Your task to perform on an android device: change keyboard looks Image 0: 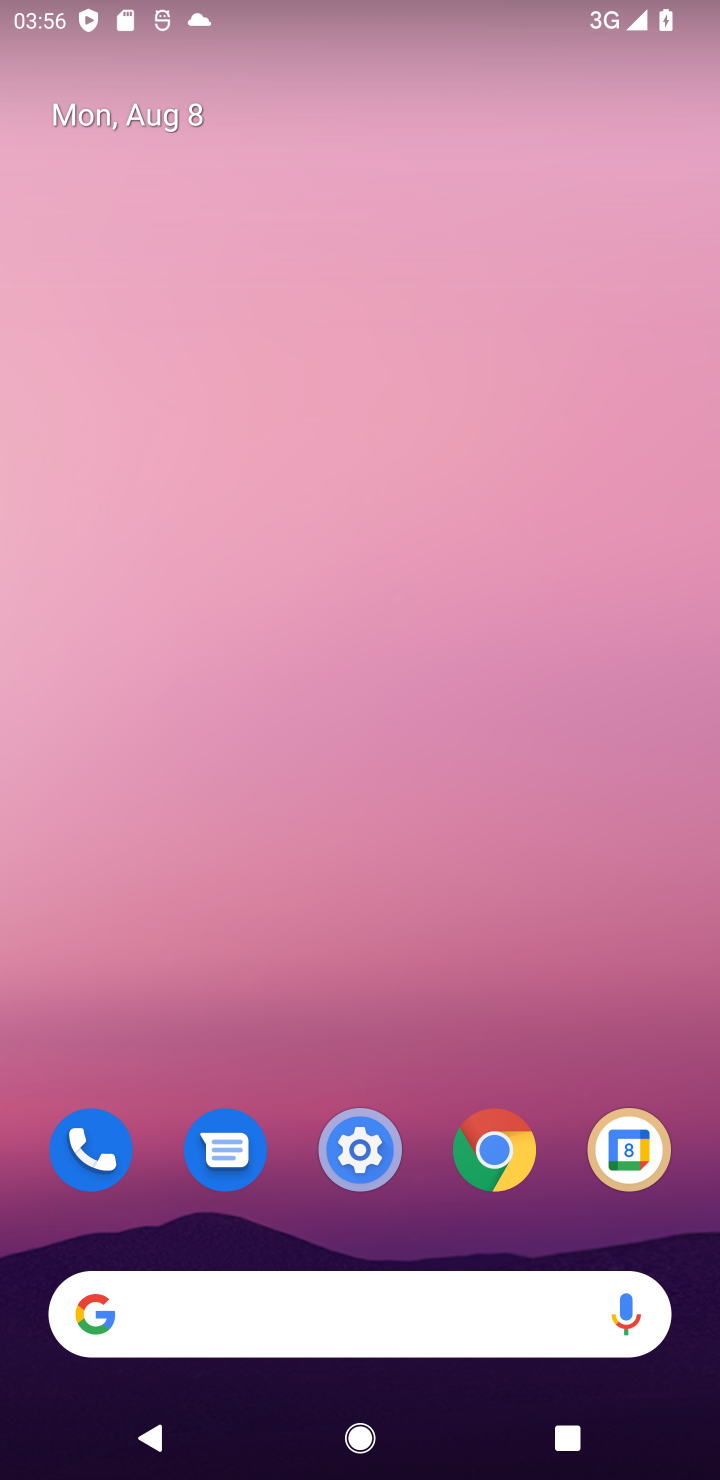
Step 0: drag from (70, 1418) to (448, 32)
Your task to perform on an android device: change keyboard looks Image 1: 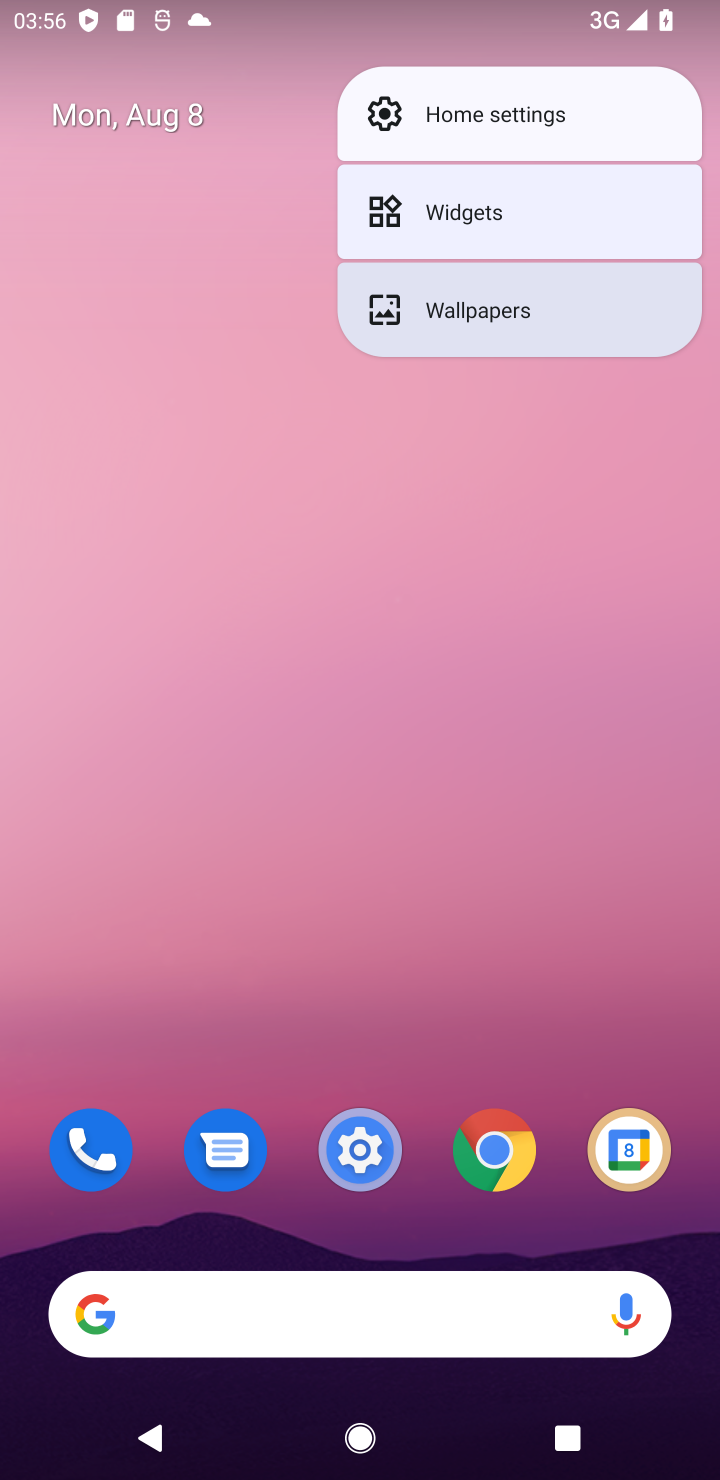
Step 1: drag from (121, 1430) to (339, 629)
Your task to perform on an android device: change keyboard looks Image 2: 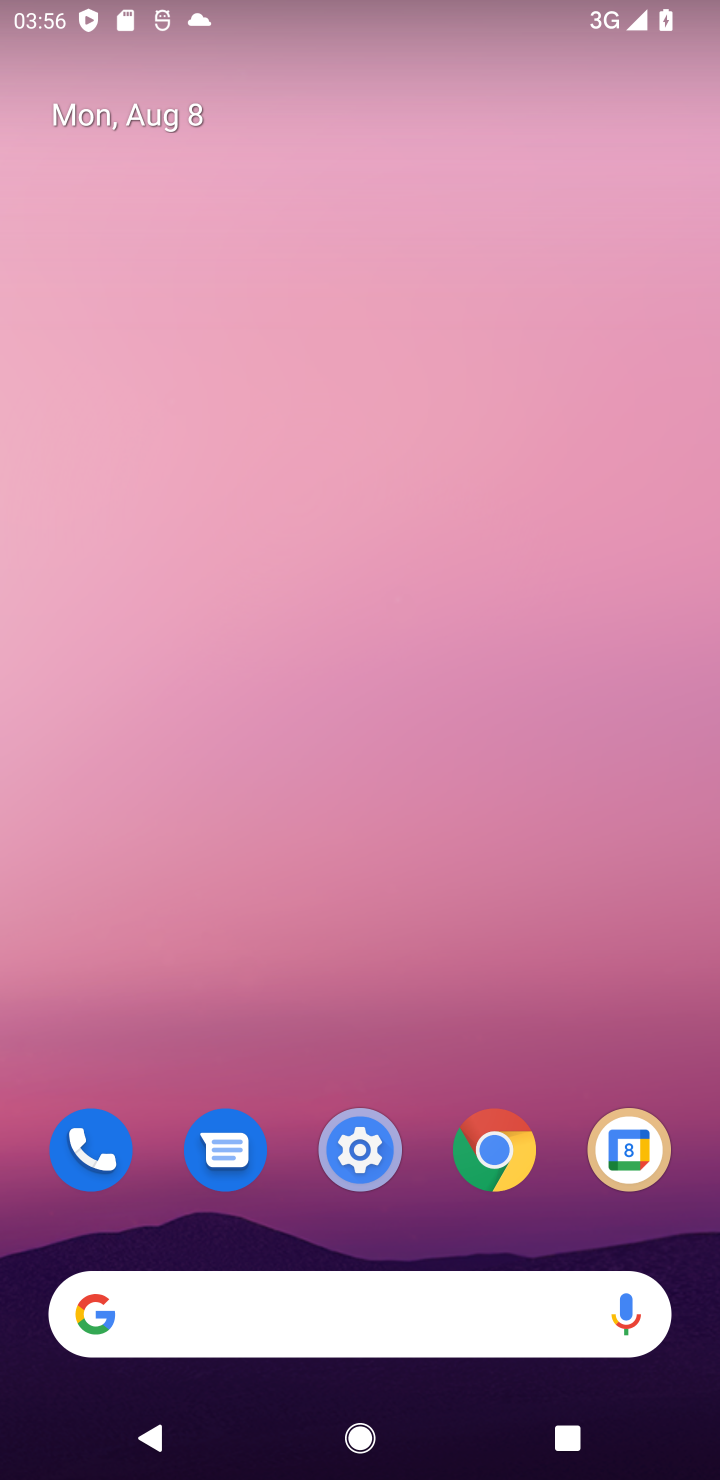
Step 2: click (406, 1175)
Your task to perform on an android device: change keyboard looks Image 3: 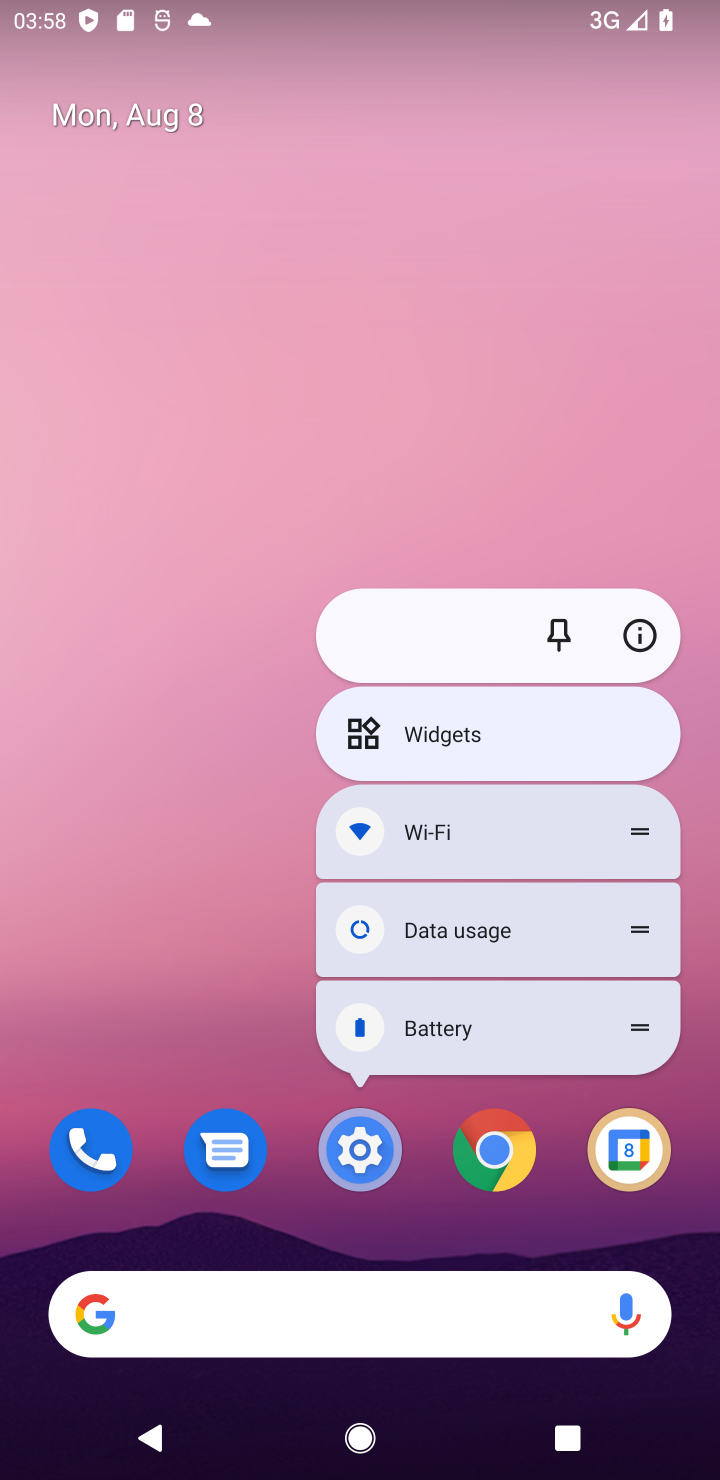
Step 3: task complete